Your task to perform on an android device: Go to sound settings Image 0: 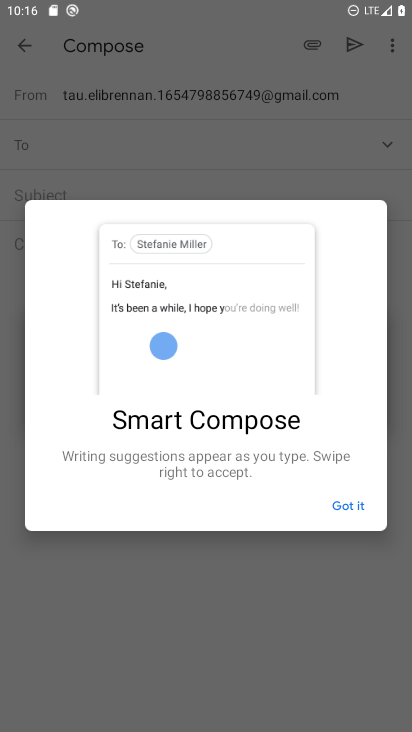
Step 0: press home button
Your task to perform on an android device: Go to sound settings Image 1: 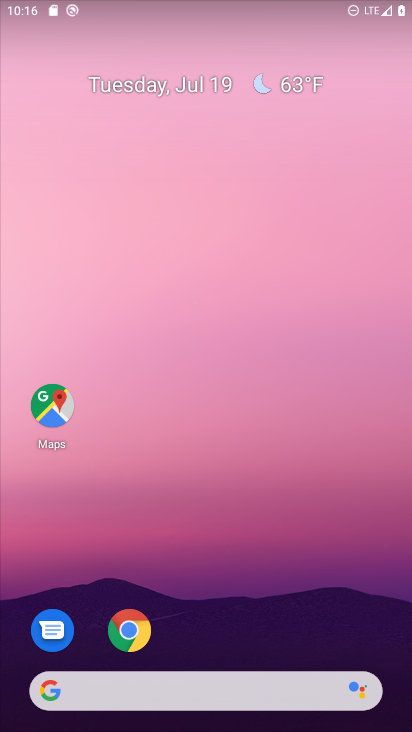
Step 1: drag from (187, 695) to (244, 44)
Your task to perform on an android device: Go to sound settings Image 2: 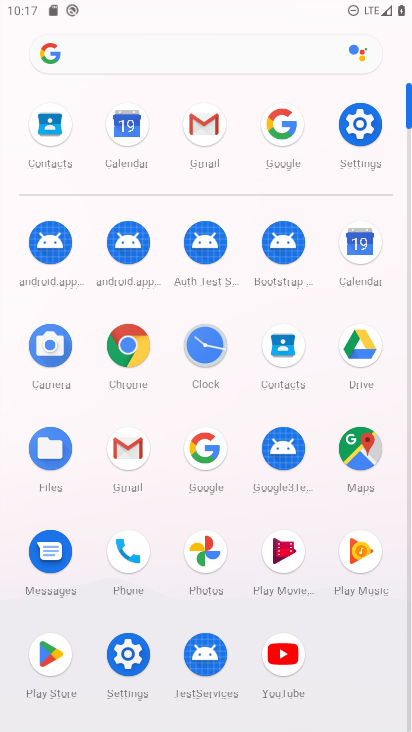
Step 2: click (358, 124)
Your task to perform on an android device: Go to sound settings Image 3: 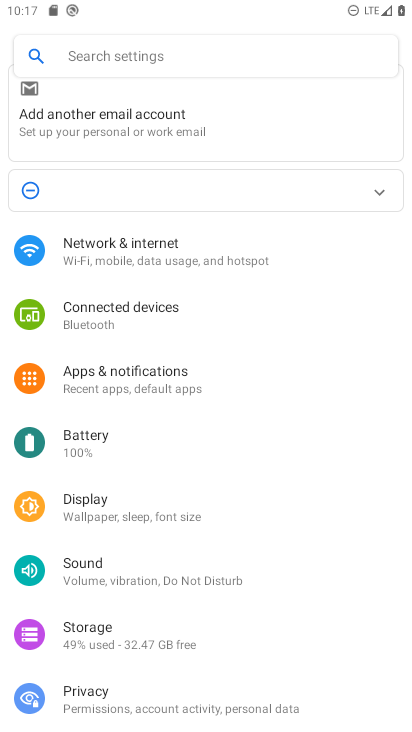
Step 3: click (92, 570)
Your task to perform on an android device: Go to sound settings Image 4: 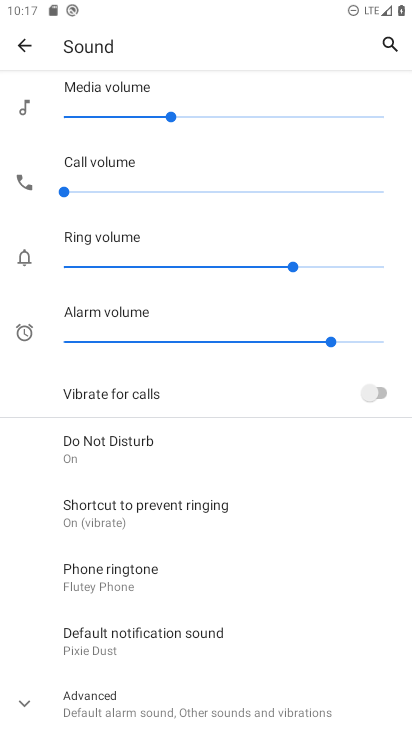
Step 4: task complete